Your task to perform on an android device: Toggle the flashlight Image 0: 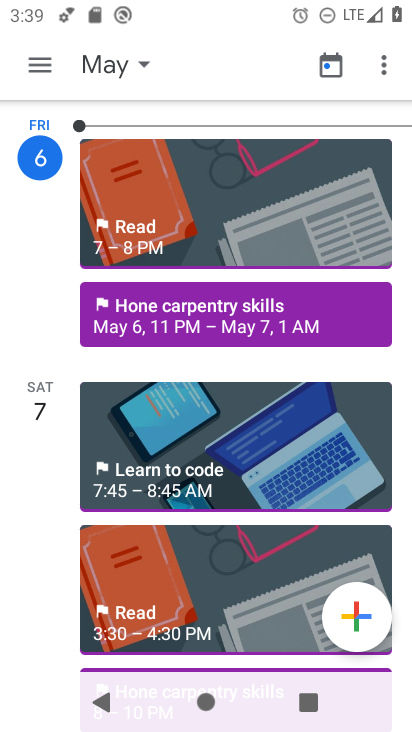
Step 0: press home button
Your task to perform on an android device: Toggle the flashlight Image 1: 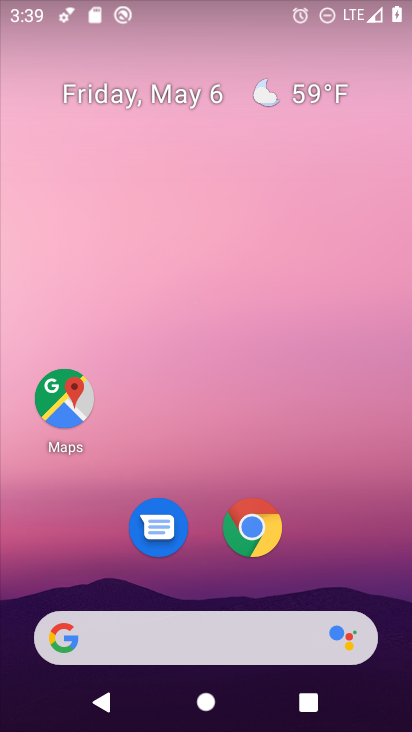
Step 1: task complete